Your task to perform on an android device: Go to Reddit.com Image 0: 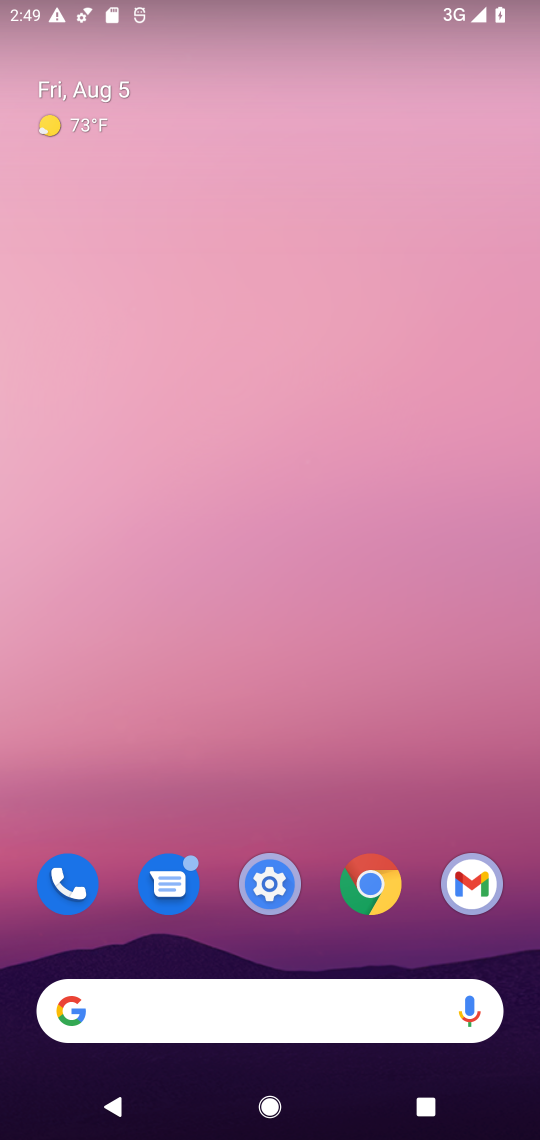
Step 0: drag from (434, 939) to (265, 100)
Your task to perform on an android device: Go to Reddit.com Image 1: 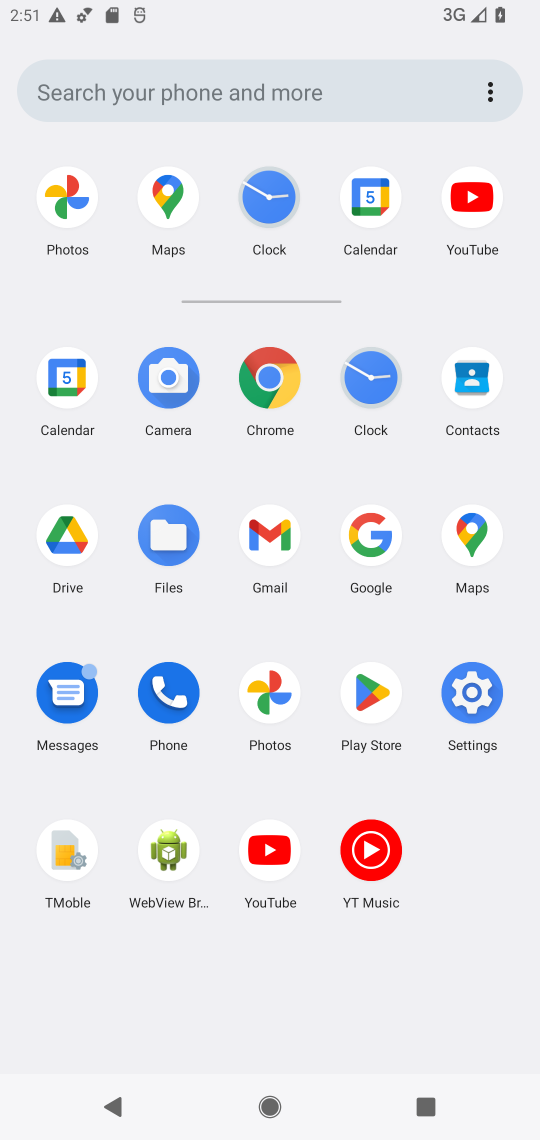
Step 1: click (368, 529)
Your task to perform on an android device: Go to Reddit.com Image 2: 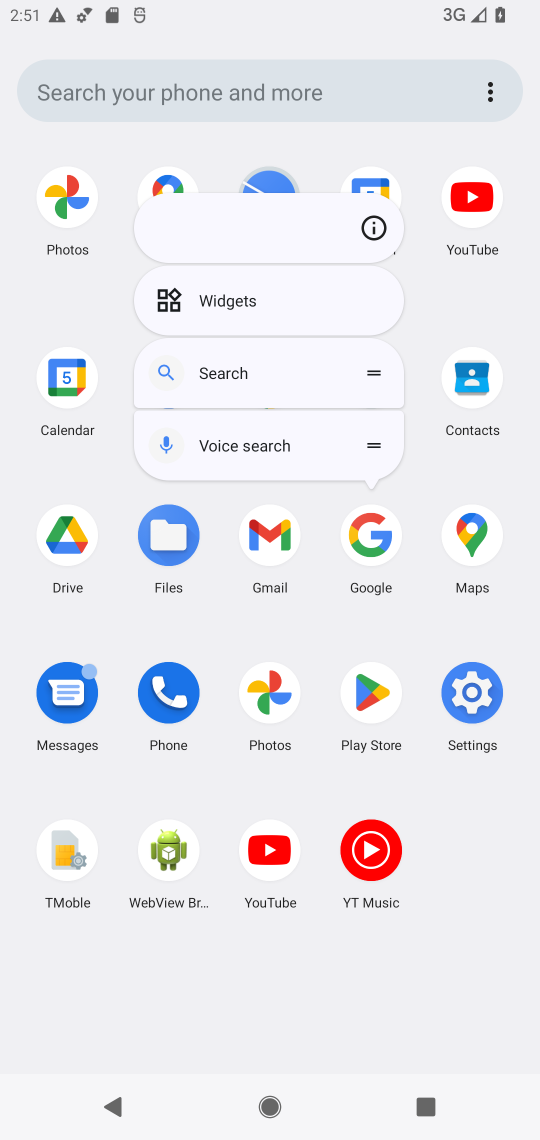
Step 2: click (374, 540)
Your task to perform on an android device: Go to Reddit.com Image 3: 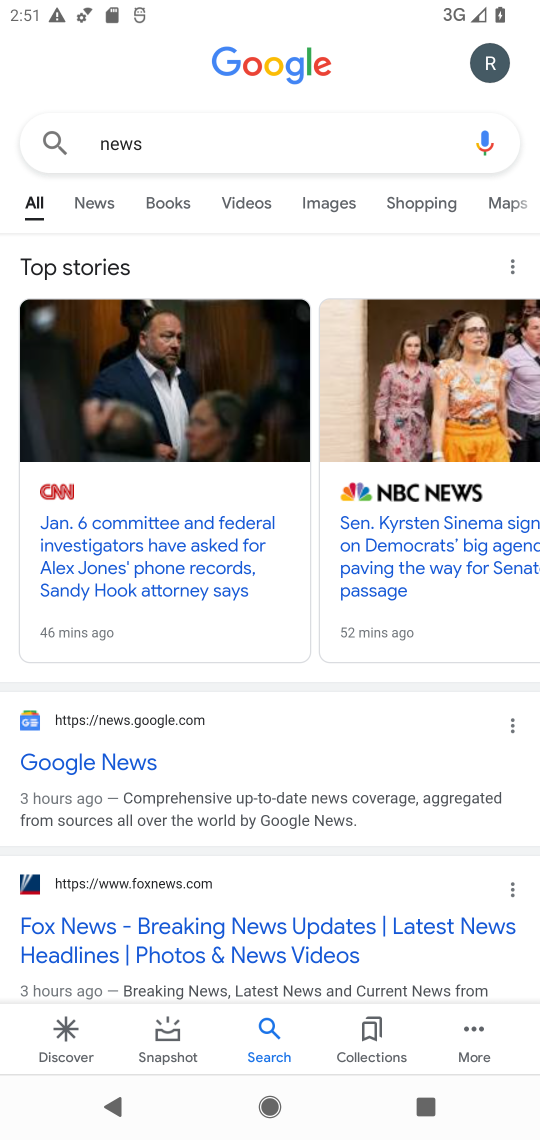
Step 3: press back button
Your task to perform on an android device: Go to Reddit.com Image 4: 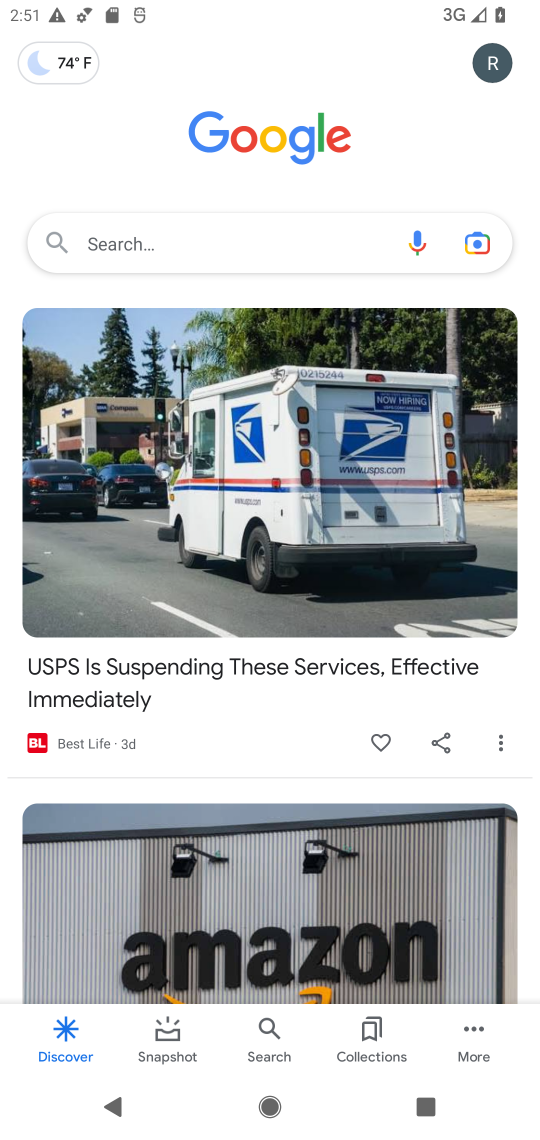
Step 4: click (79, 236)
Your task to perform on an android device: Go to Reddit.com Image 5: 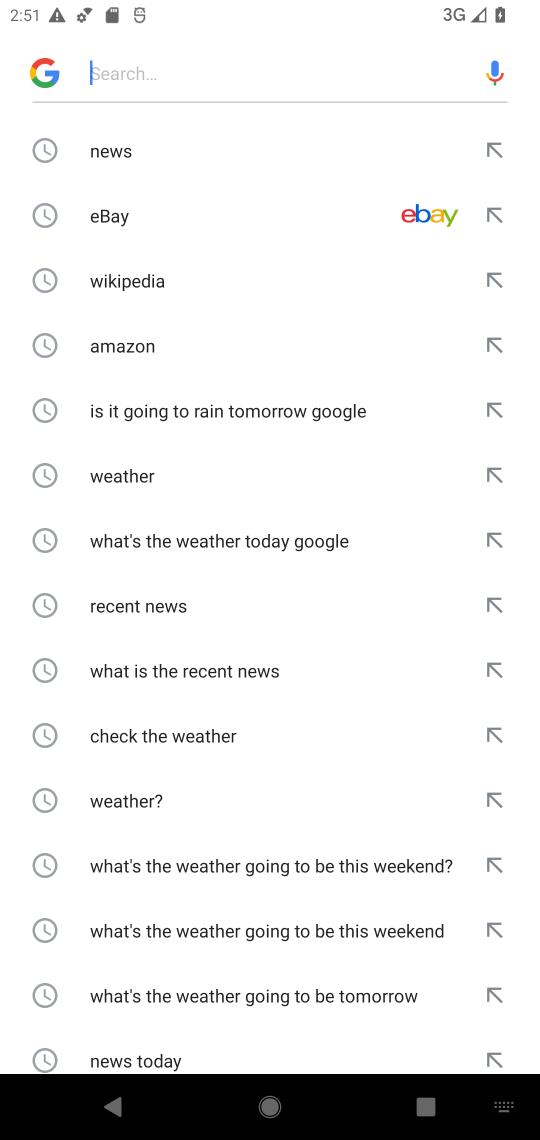
Step 5: type " Reddit.com"
Your task to perform on an android device: Go to Reddit.com Image 6: 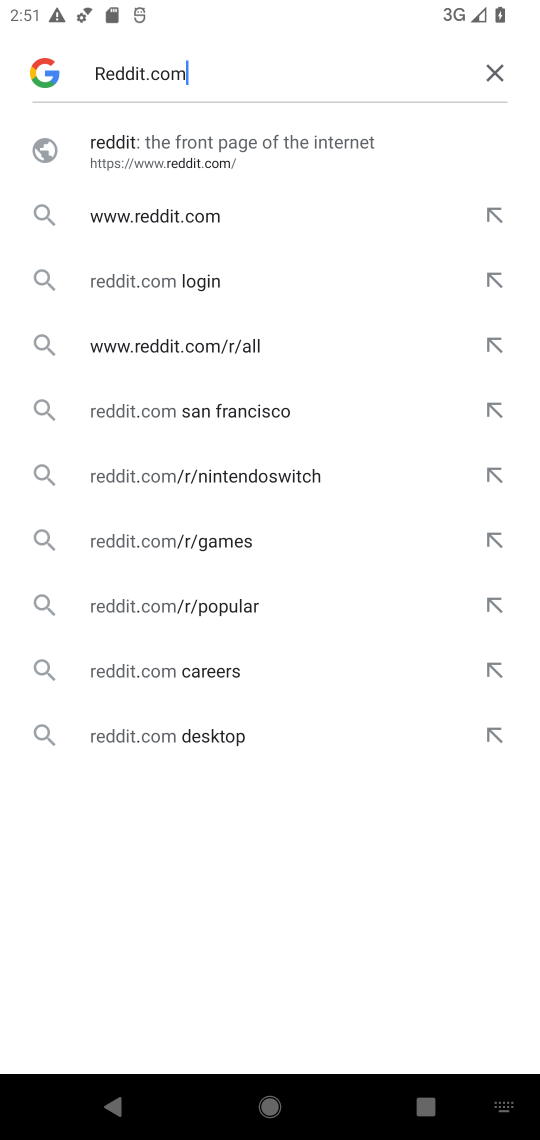
Step 6: click (159, 157)
Your task to perform on an android device: Go to Reddit.com Image 7: 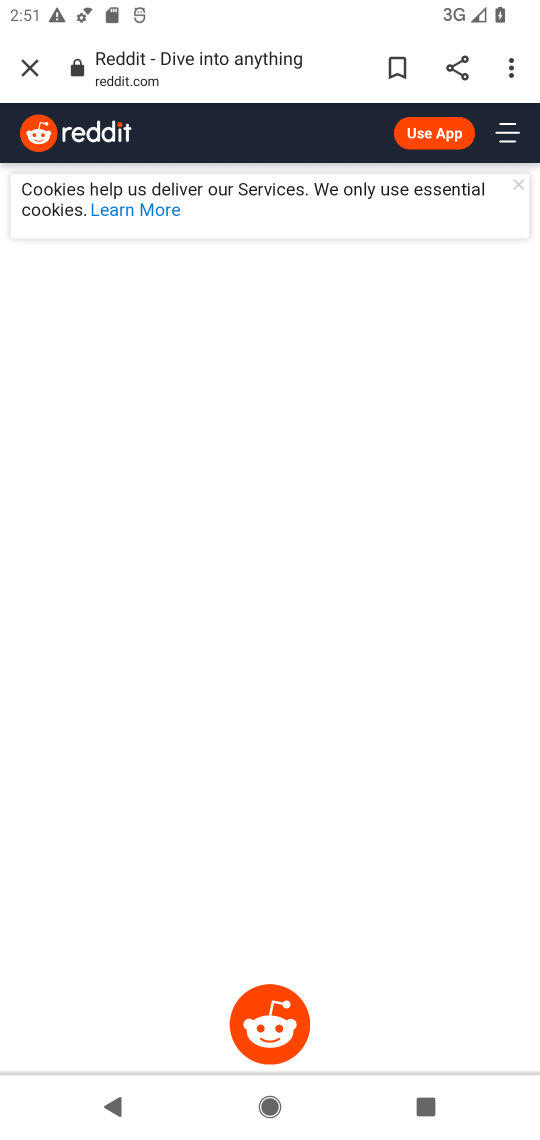
Step 7: task complete